Your task to perform on an android device: check android version Image 0: 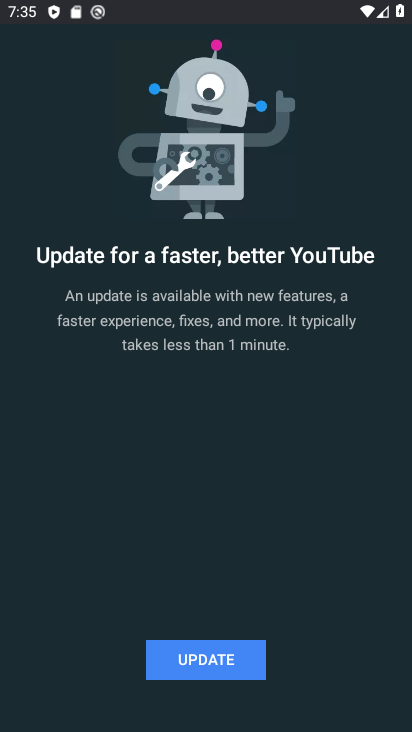
Step 0: drag from (217, 18) to (294, 560)
Your task to perform on an android device: check android version Image 1: 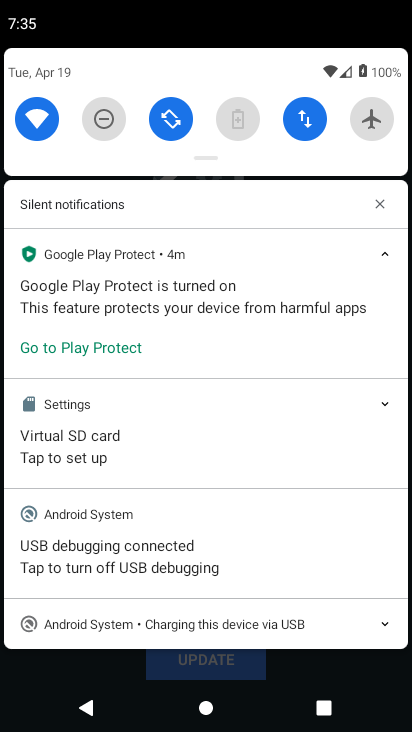
Step 1: drag from (268, 70) to (288, 570)
Your task to perform on an android device: check android version Image 2: 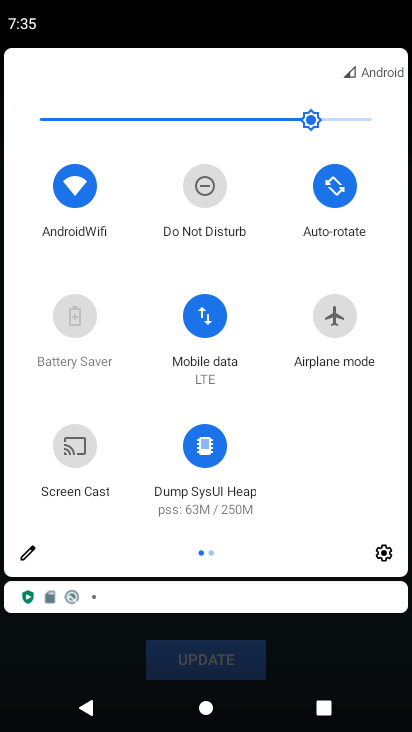
Step 2: click (385, 551)
Your task to perform on an android device: check android version Image 3: 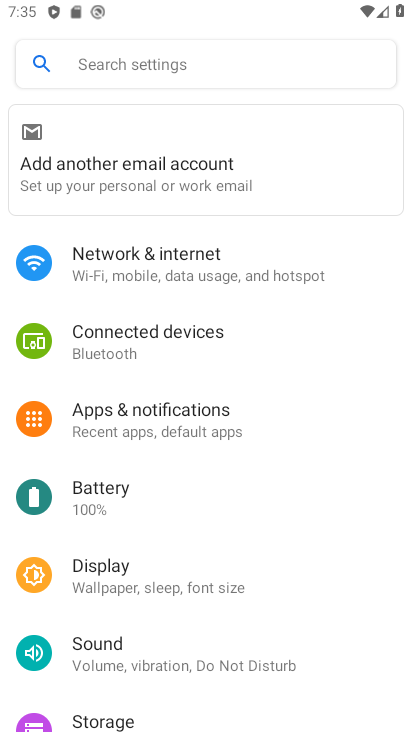
Step 3: drag from (102, 686) to (118, 124)
Your task to perform on an android device: check android version Image 4: 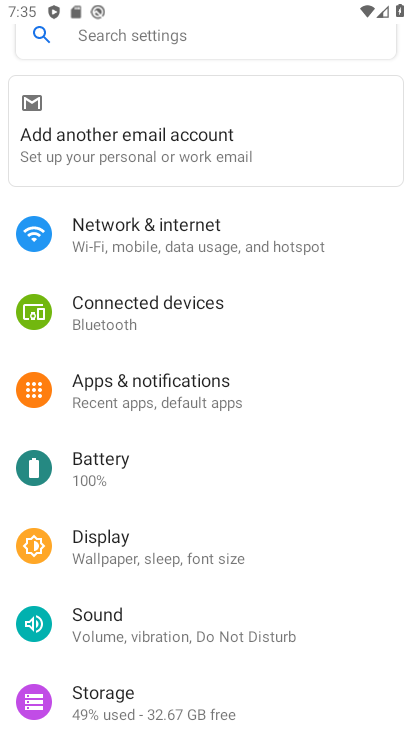
Step 4: drag from (190, 584) to (212, 33)
Your task to perform on an android device: check android version Image 5: 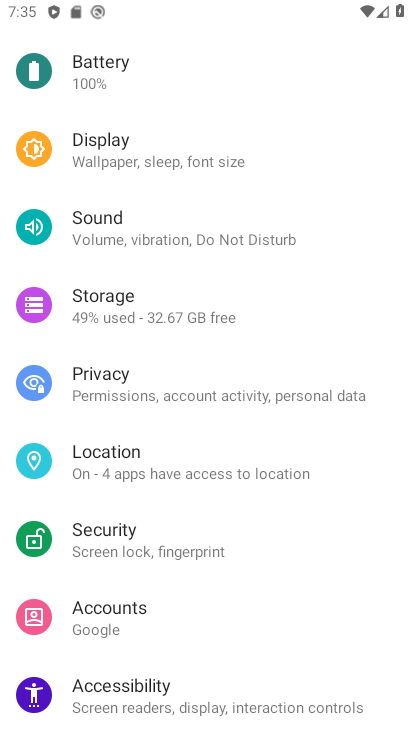
Step 5: drag from (168, 670) to (197, 68)
Your task to perform on an android device: check android version Image 6: 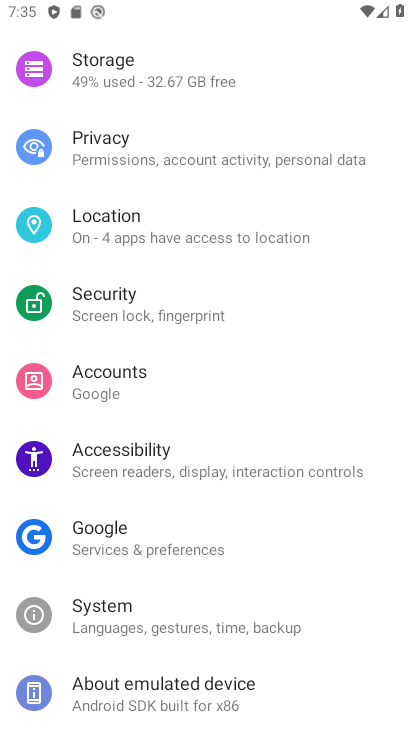
Step 6: click (165, 704)
Your task to perform on an android device: check android version Image 7: 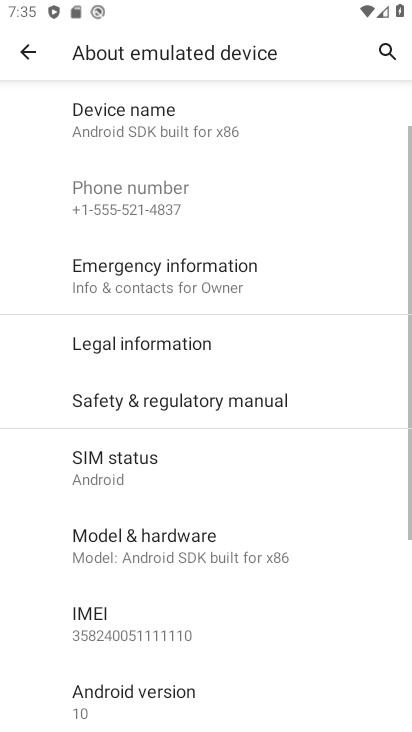
Step 7: click (163, 690)
Your task to perform on an android device: check android version Image 8: 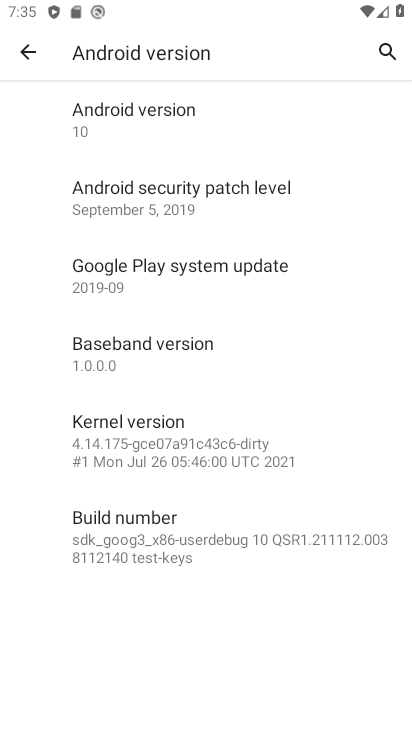
Step 8: task complete